Your task to perform on an android device: What's on my calendar today? Image 0: 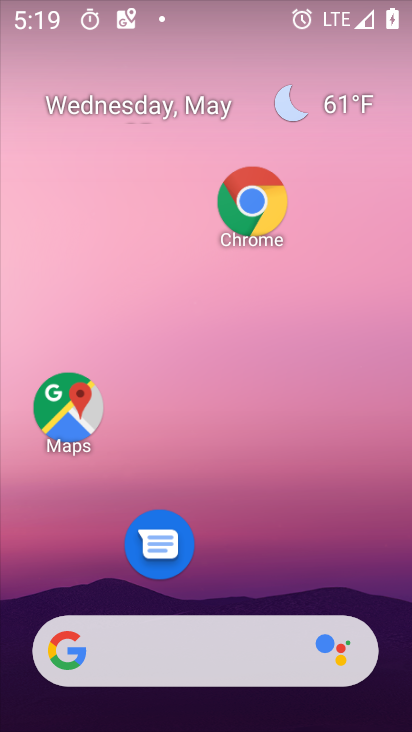
Step 0: drag from (213, 586) to (238, 135)
Your task to perform on an android device: What's on my calendar today? Image 1: 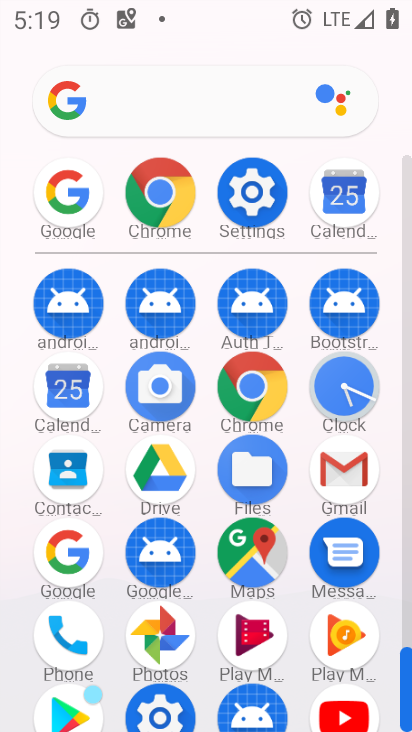
Step 1: click (337, 197)
Your task to perform on an android device: What's on my calendar today? Image 2: 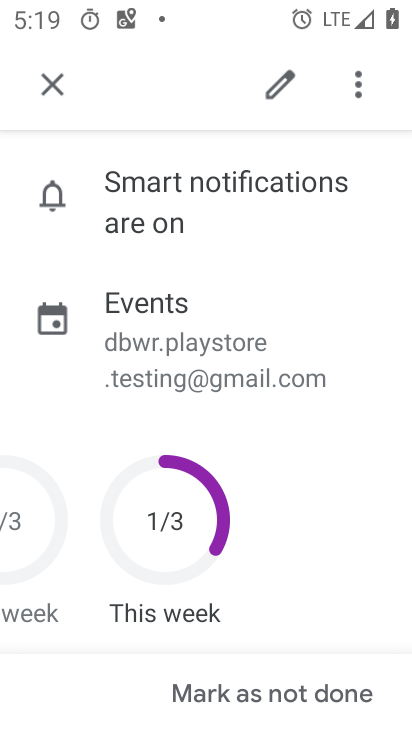
Step 2: click (67, 87)
Your task to perform on an android device: What's on my calendar today? Image 3: 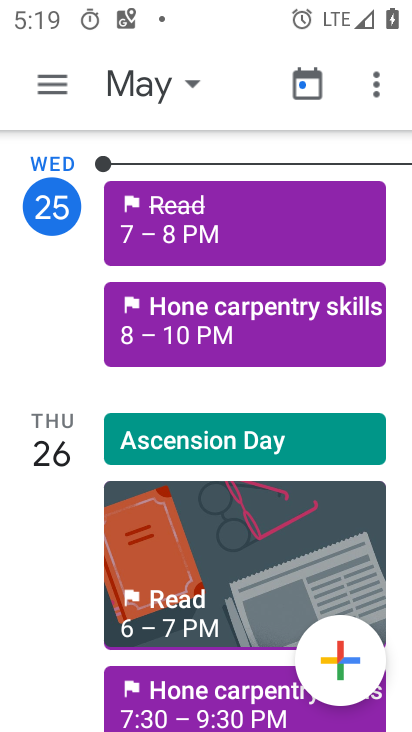
Step 3: click (148, 226)
Your task to perform on an android device: What's on my calendar today? Image 4: 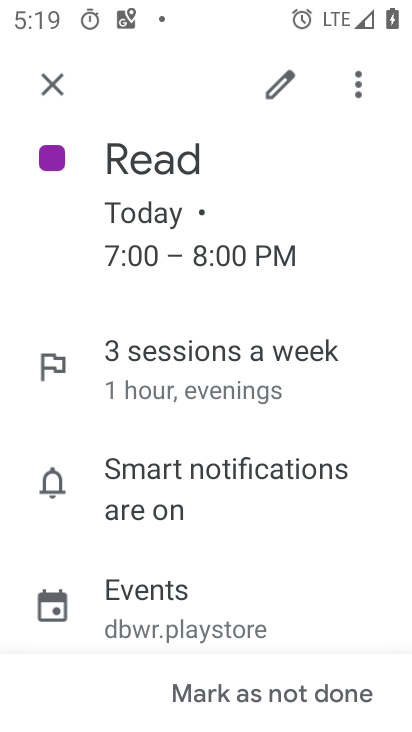
Step 4: task complete